Your task to perform on an android device: Open sound settings Image 0: 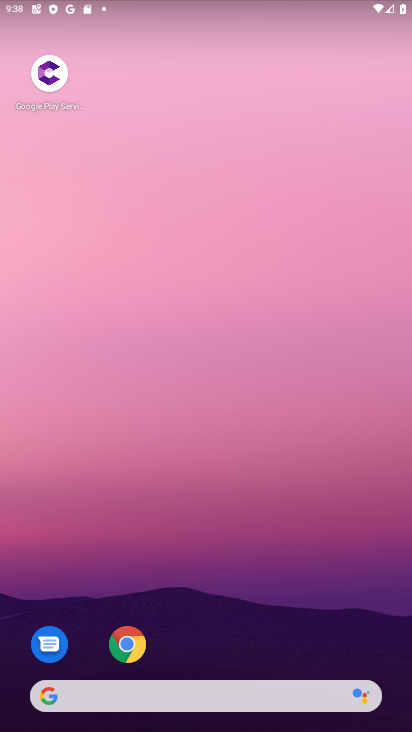
Step 0: drag from (238, 642) to (342, 123)
Your task to perform on an android device: Open sound settings Image 1: 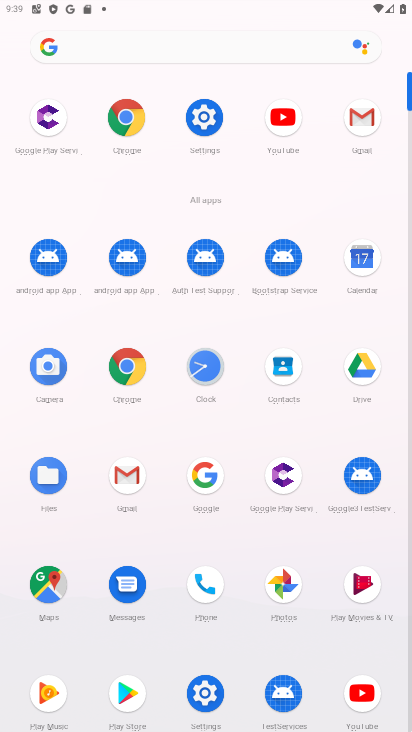
Step 1: click (197, 137)
Your task to perform on an android device: Open sound settings Image 2: 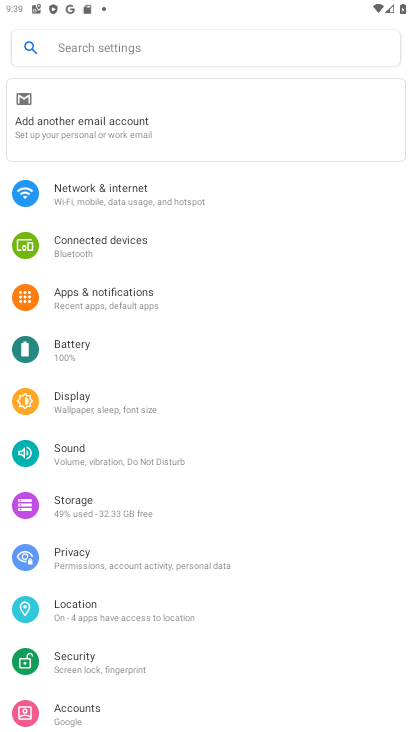
Step 2: click (152, 458)
Your task to perform on an android device: Open sound settings Image 3: 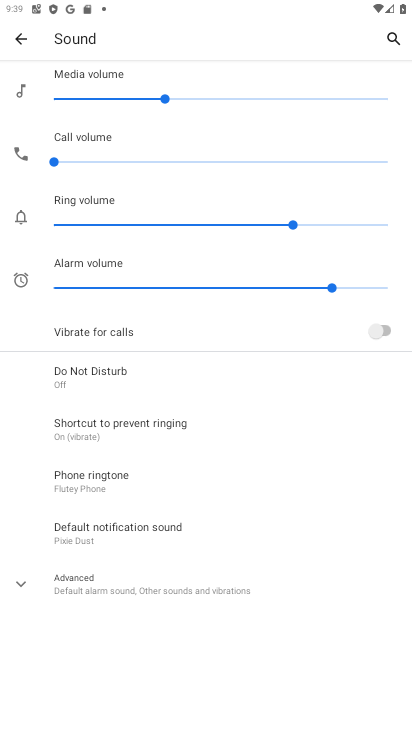
Step 3: task complete